Your task to perform on an android device: turn on wifi Image 0: 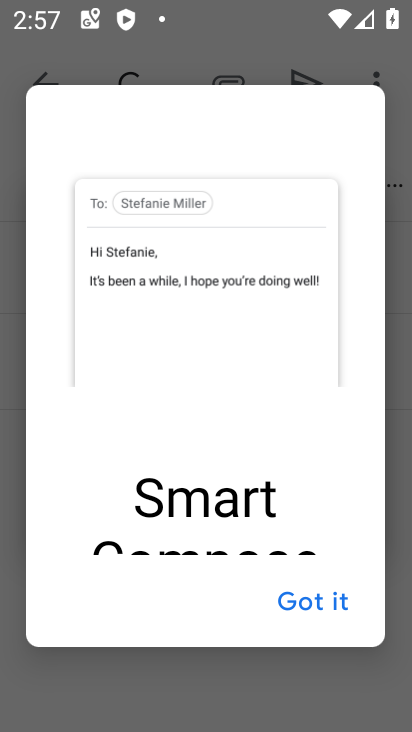
Step 0: press home button
Your task to perform on an android device: turn on wifi Image 1: 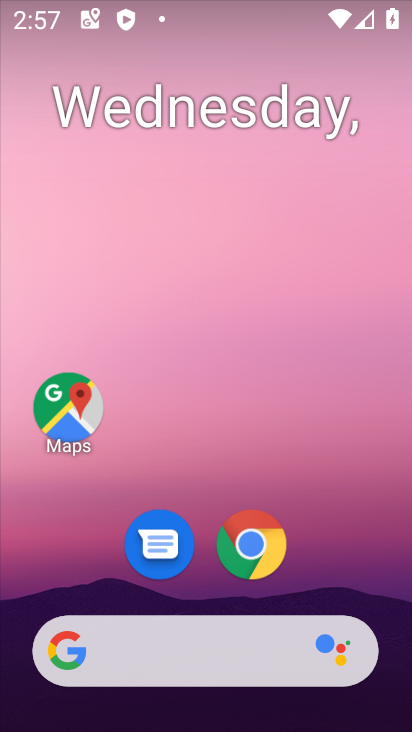
Step 1: drag from (349, 579) to (326, 156)
Your task to perform on an android device: turn on wifi Image 2: 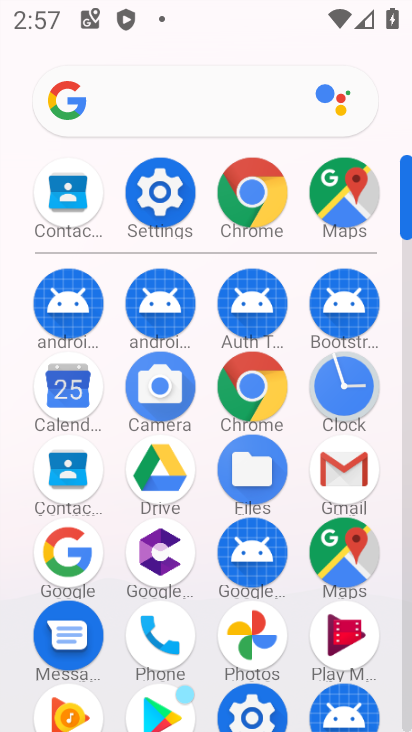
Step 2: click (147, 206)
Your task to perform on an android device: turn on wifi Image 3: 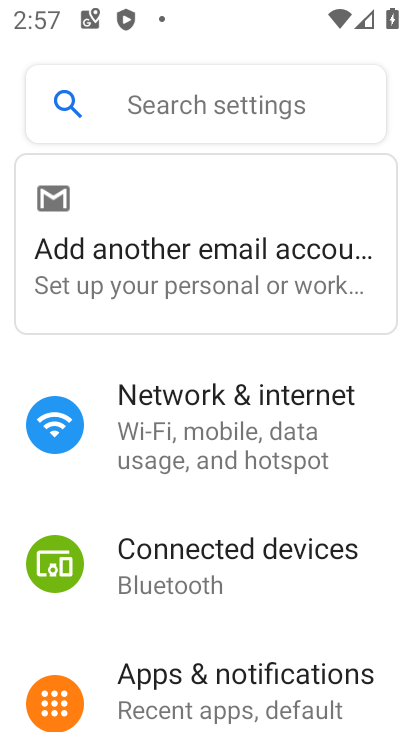
Step 3: click (231, 441)
Your task to perform on an android device: turn on wifi Image 4: 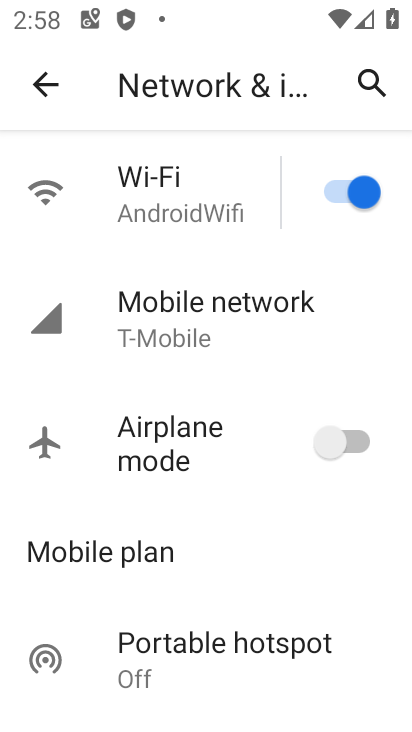
Step 4: task complete